Your task to perform on an android device: turn off priority inbox in the gmail app Image 0: 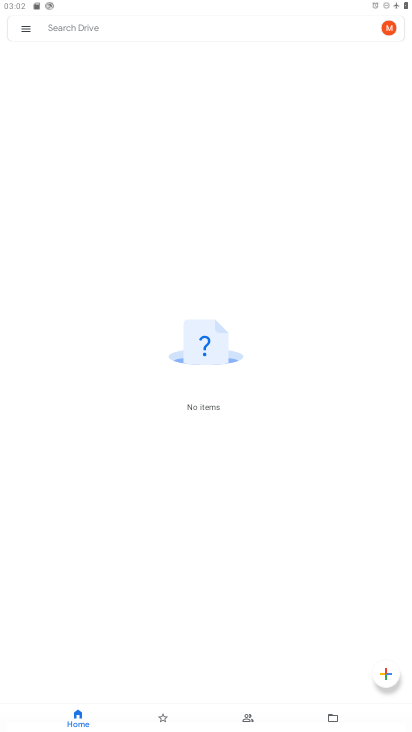
Step 0: press home button
Your task to perform on an android device: turn off priority inbox in the gmail app Image 1: 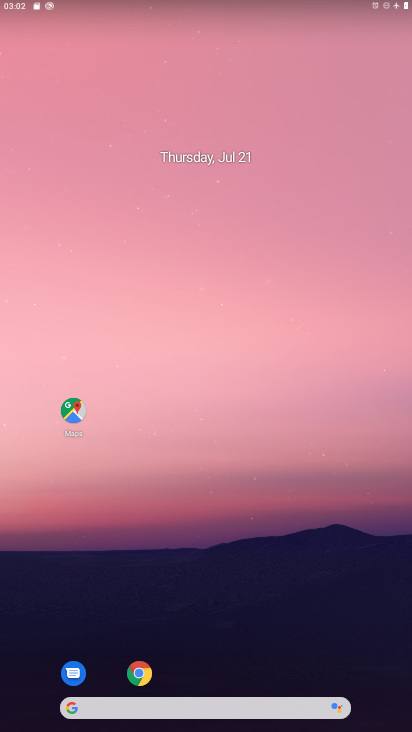
Step 1: drag from (197, 668) to (197, 256)
Your task to perform on an android device: turn off priority inbox in the gmail app Image 2: 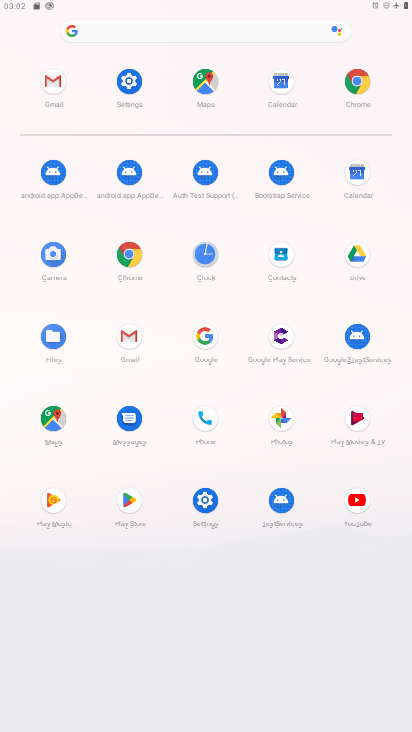
Step 2: click (50, 86)
Your task to perform on an android device: turn off priority inbox in the gmail app Image 3: 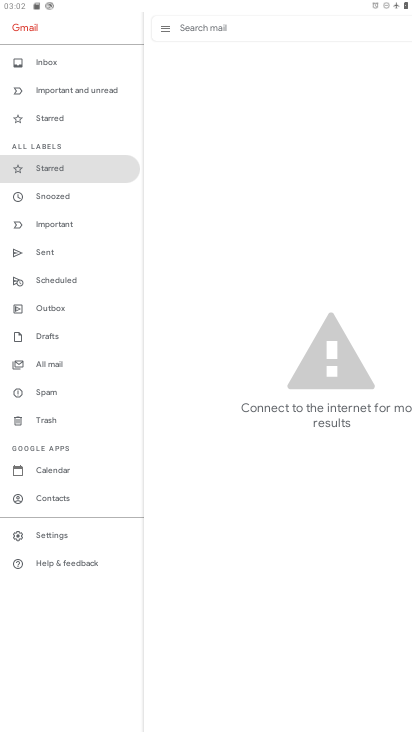
Step 3: click (55, 538)
Your task to perform on an android device: turn off priority inbox in the gmail app Image 4: 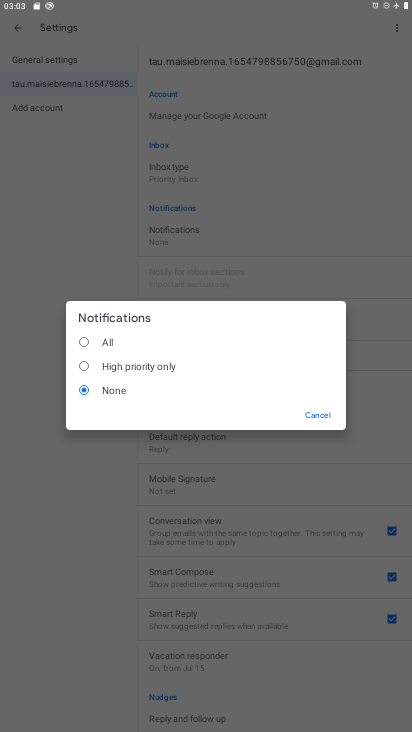
Step 4: click (90, 187)
Your task to perform on an android device: turn off priority inbox in the gmail app Image 5: 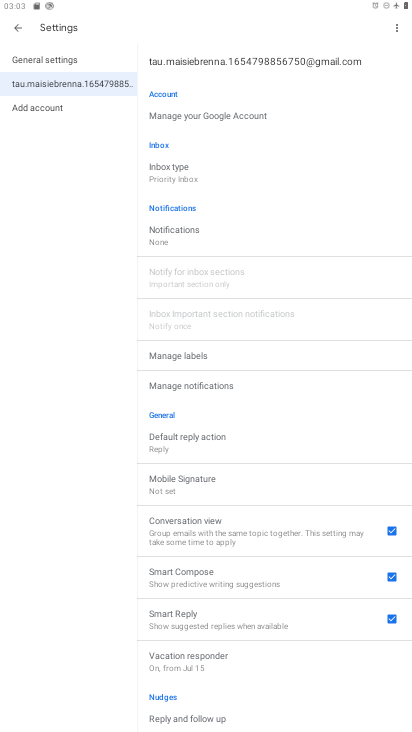
Step 5: click (205, 178)
Your task to perform on an android device: turn off priority inbox in the gmail app Image 6: 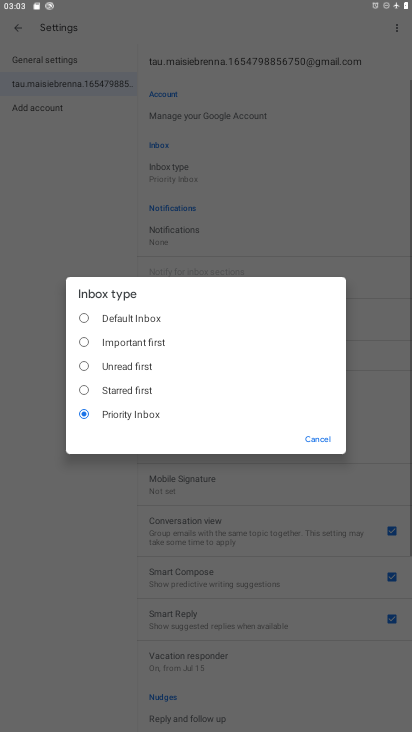
Step 6: click (130, 312)
Your task to perform on an android device: turn off priority inbox in the gmail app Image 7: 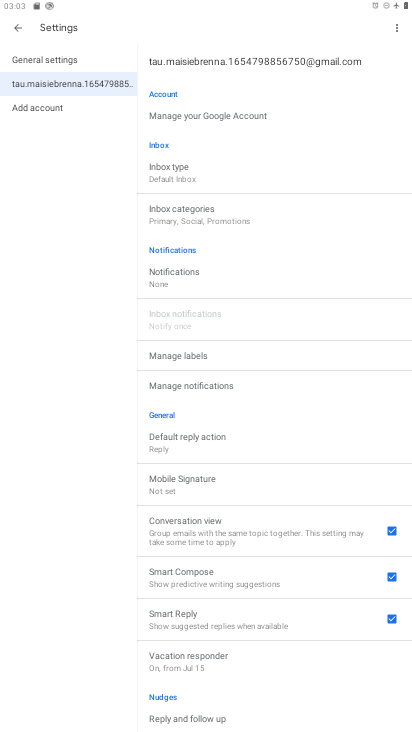
Step 7: task complete